Your task to perform on an android device: turn vacation reply on in the gmail app Image 0: 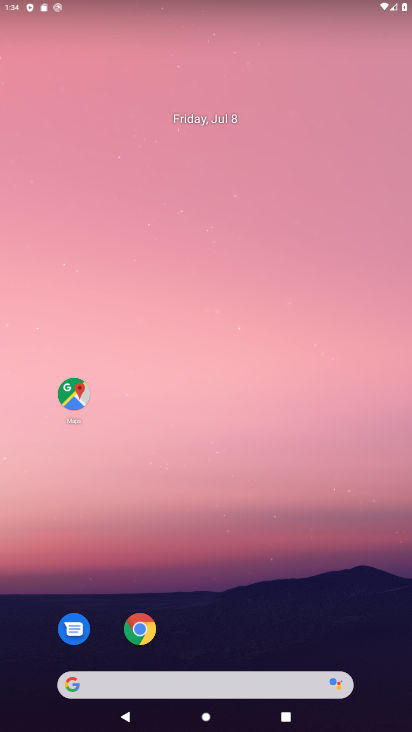
Step 0: drag from (246, 614) to (251, 124)
Your task to perform on an android device: turn vacation reply on in the gmail app Image 1: 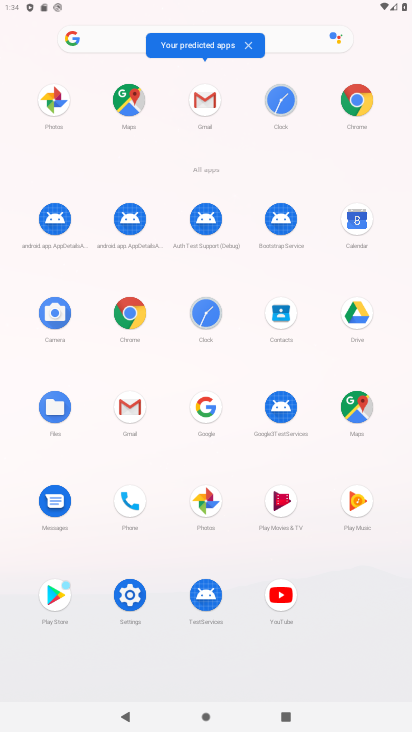
Step 1: click (196, 106)
Your task to perform on an android device: turn vacation reply on in the gmail app Image 2: 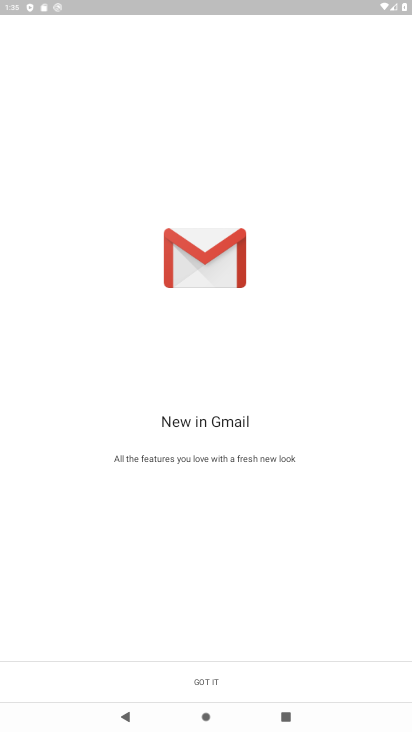
Step 2: click (209, 681)
Your task to perform on an android device: turn vacation reply on in the gmail app Image 3: 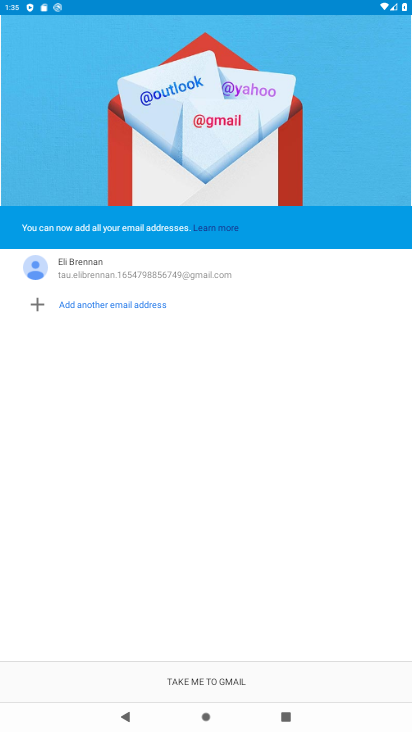
Step 3: click (209, 681)
Your task to perform on an android device: turn vacation reply on in the gmail app Image 4: 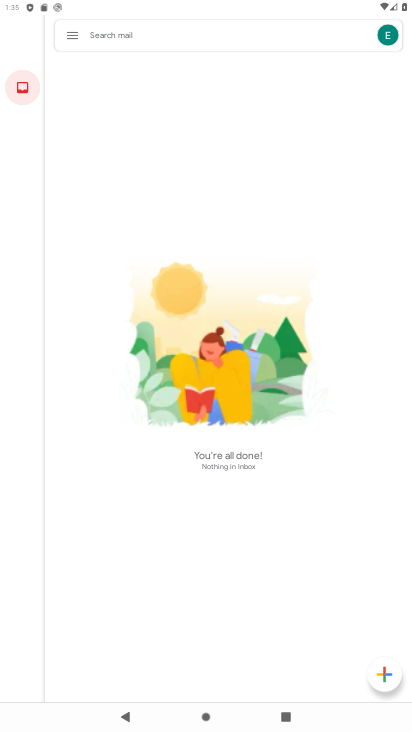
Step 4: click (71, 30)
Your task to perform on an android device: turn vacation reply on in the gmail app Image 5: 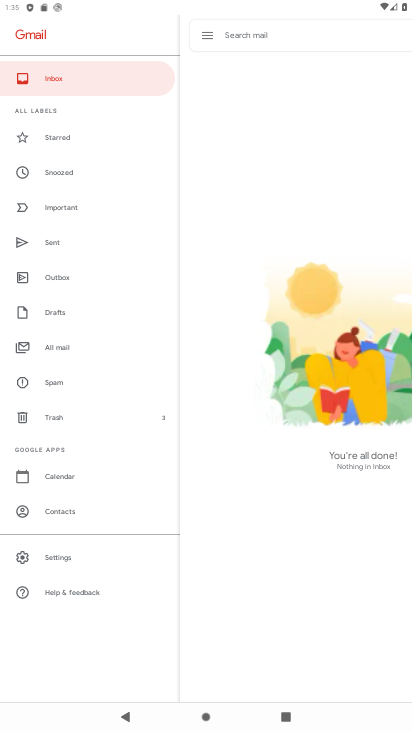
Step 5: click (85, 547)
Your task to perform on an android device: turn vacation reply on in the gmail app Image 6: 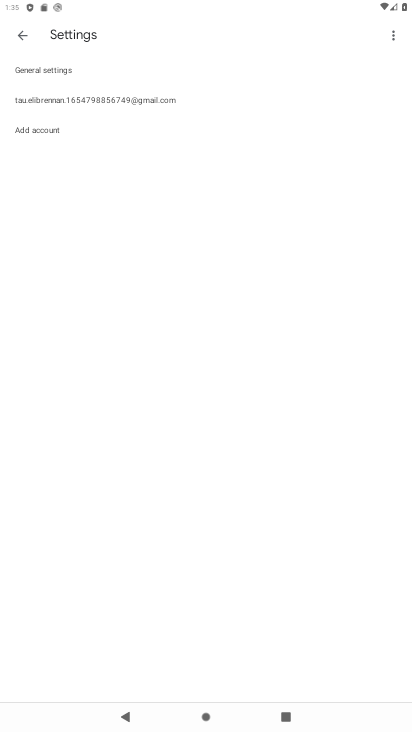
Step 6: click (146, 94)
Your task to perform on an android device: turn vacation reply on in the gmail app Image 7: 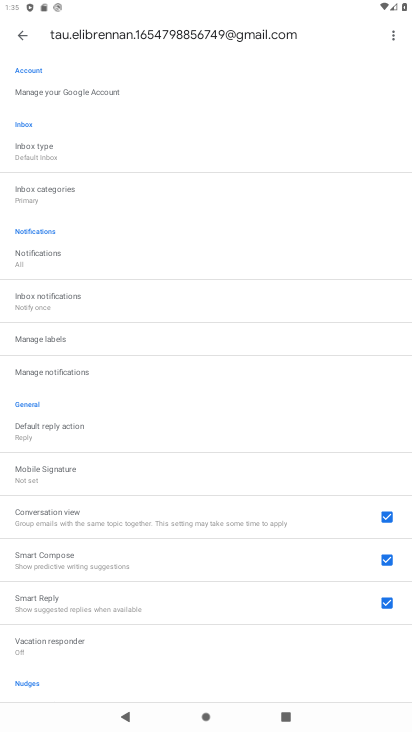
Step 7: click (142, 647)
Your task to perform on an android device: turn vacation reply on in the gmail app Image 8: 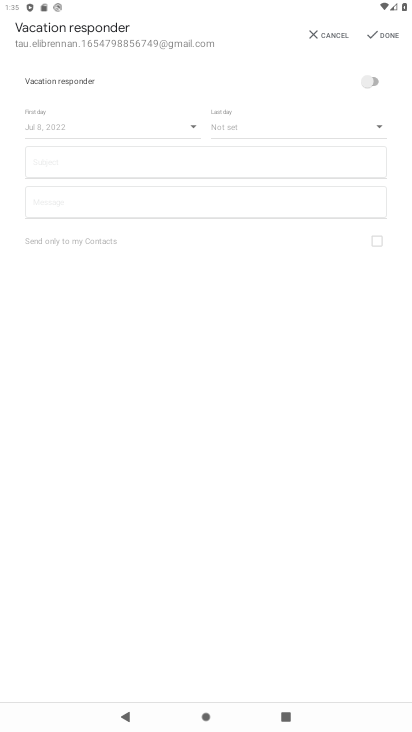
Step 8: click (370, 85)
Your task to perform on an android device: turn vacation reply on in the gmail app Image 9: 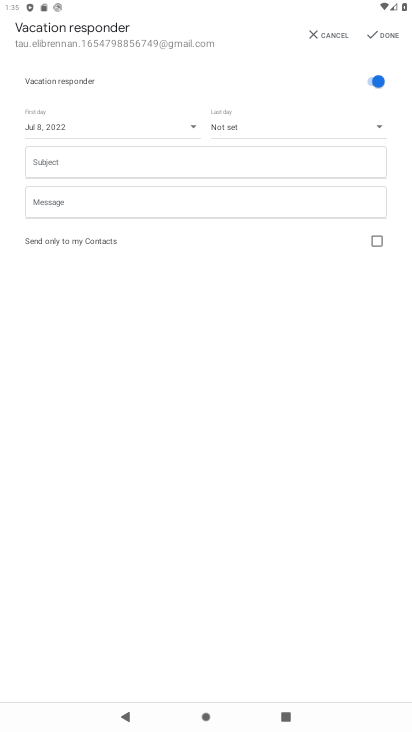
Step 9: click (383, 38)
Your task to perform on an android device: turn vacation reply on in the gmail app Image 10: 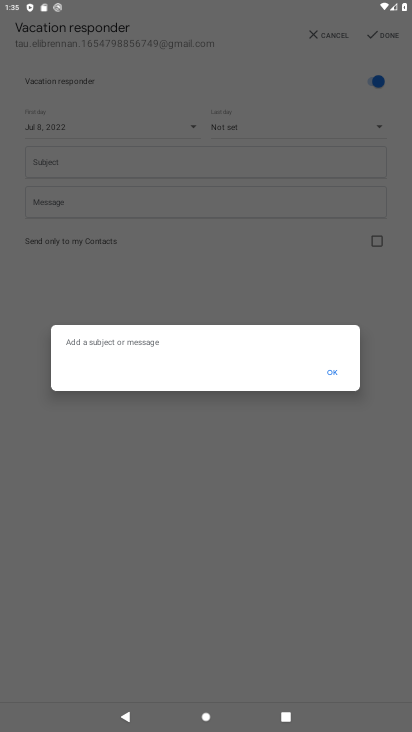
Step 10: click (333, 366)
Your task to perform on an android device: turn vacation reply on in the gmail app Image 11: 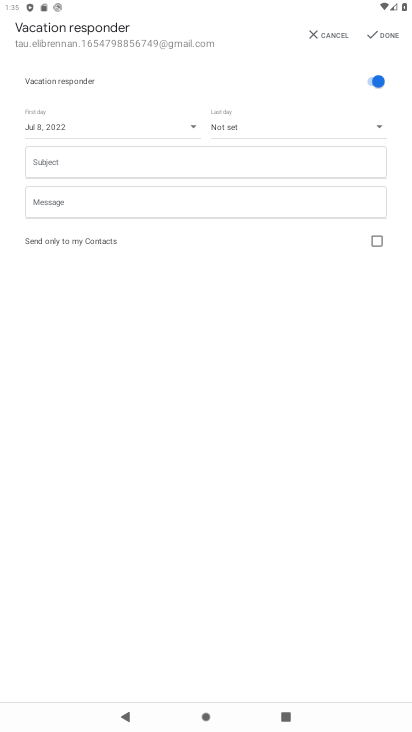
Step 11: task complete